Your task to perform on an android device: Go to Google Image 0: 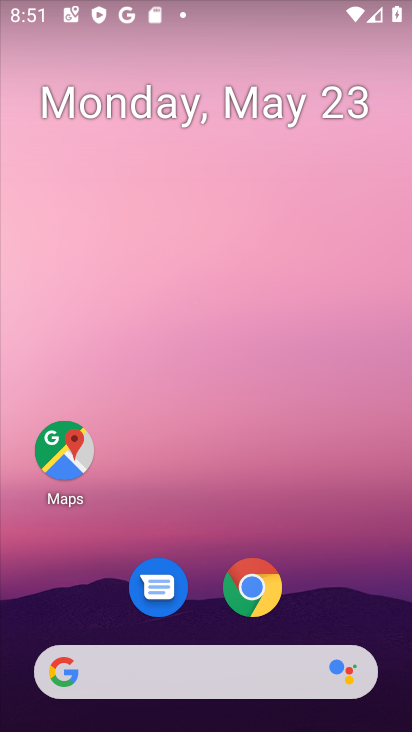
Step 0: drag from (193, 474) to (224, 149)
Your task to perform on an android device: Go to Google Image 1: 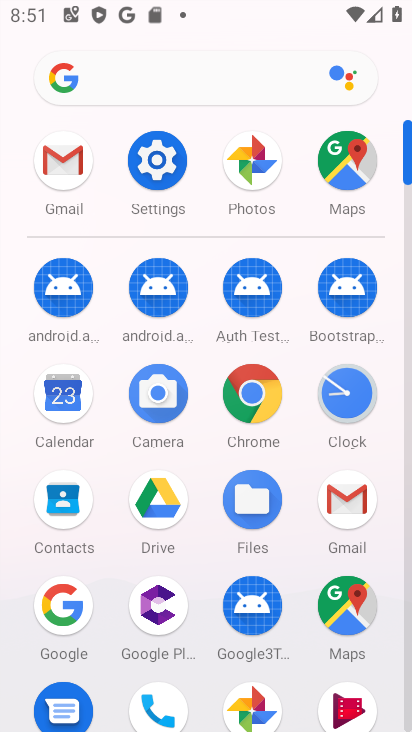
Step 1: click (46, 608)
Your task to perform on an android device: Go to Google Image 2: 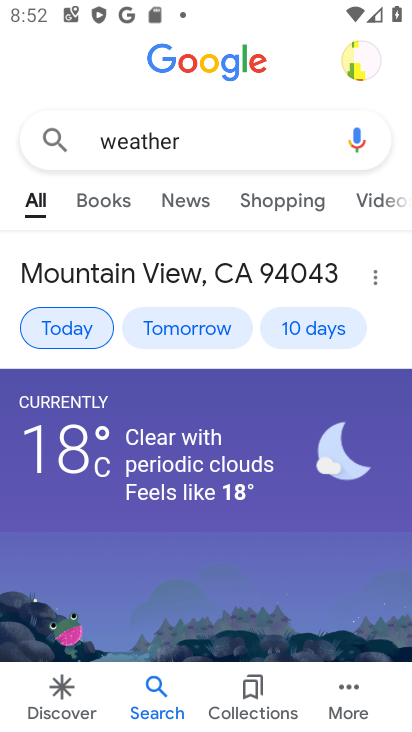
Step 2: task complete